Your task to perform on an android device: Open my contact list Image 0: 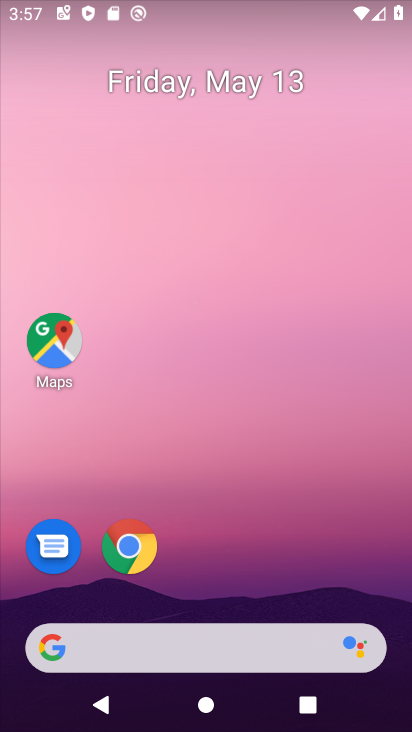
Step 0: drag from (194, 575) to (348, 2)
Your task to perform on an android device: Open my contact list Image 1: 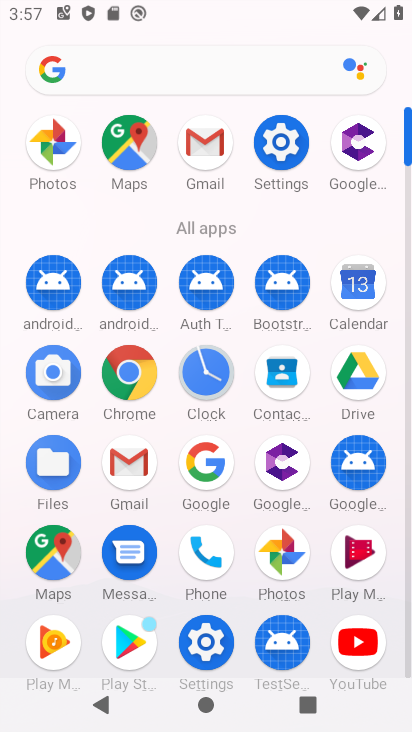
Step 1: click (278, 380)
Your task to perform on an android device: Open my contact list Image 2: 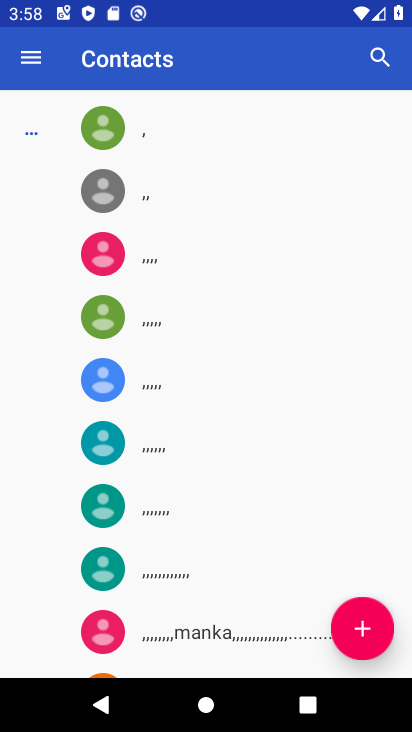
Step 2: task complete